Your task to perform on an android device: Do I have any events this weekend? Image 0: 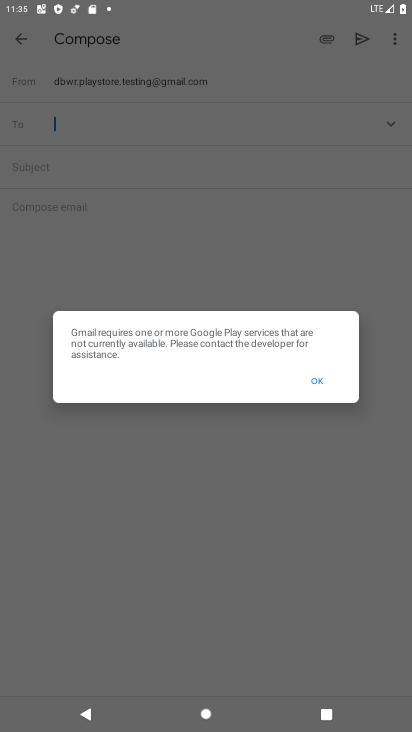
Step 0: press home button
Your task to perform on an android device: Do I have any events this weekend? Image 1: 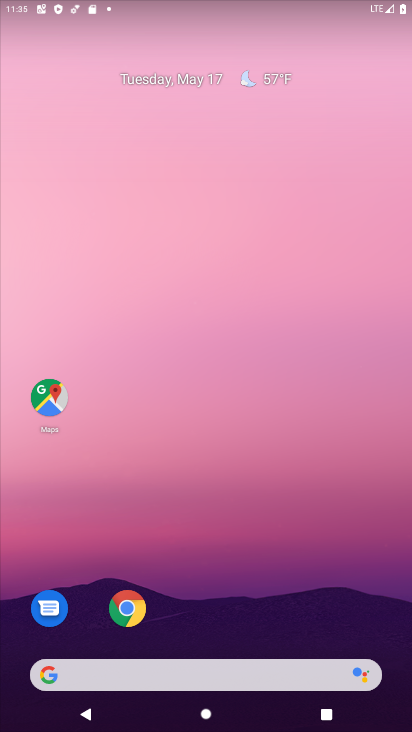
Step 1: drag from (235, 532) to (127, 43)
Your task to perform on an android device: Do I have any events this weekend? Image 2: 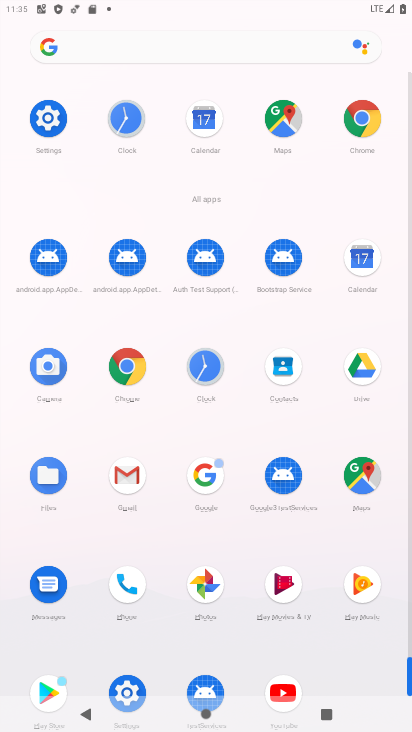
Step 2: click (359, 261)
Your task to perform on an android device: Do I have any events this weekend? Image 3: 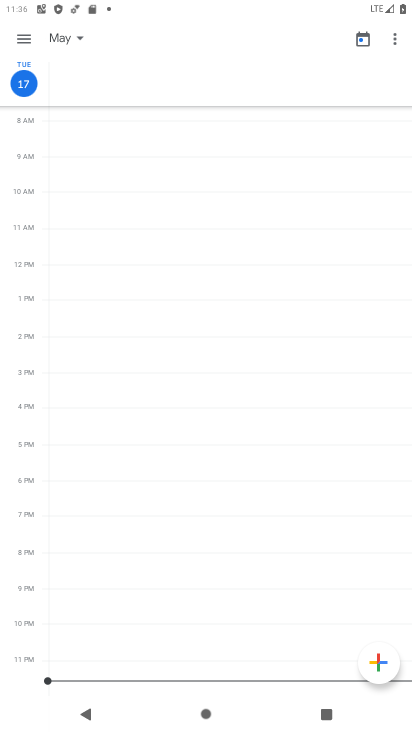
Step 3: click (24, 33)
Your task to perform on an android device: Do I have any events this weekend? Image 4: 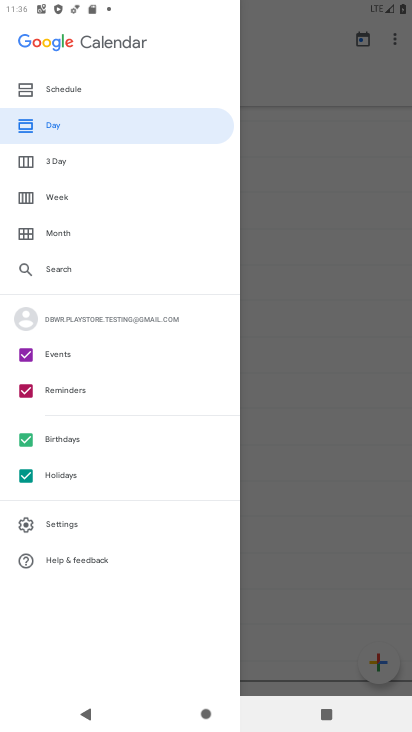
Step 4: click (62, 192)
Your task to perform on an android device: Do I have any events this weekend? Image 5: 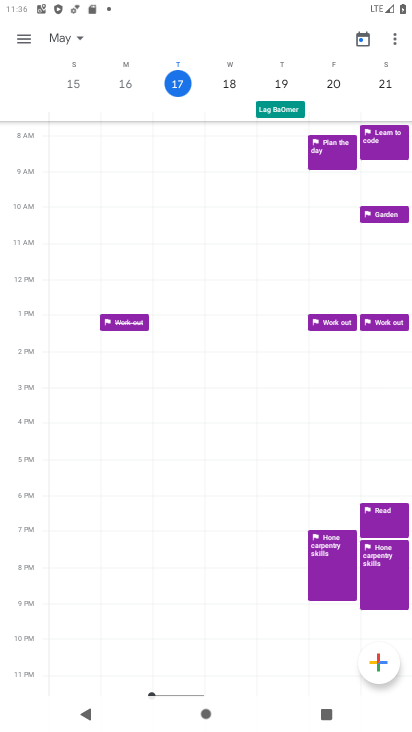
Step 5: task complete